Your task to perform on an android device: open a new tab in the chrome app Image 0: 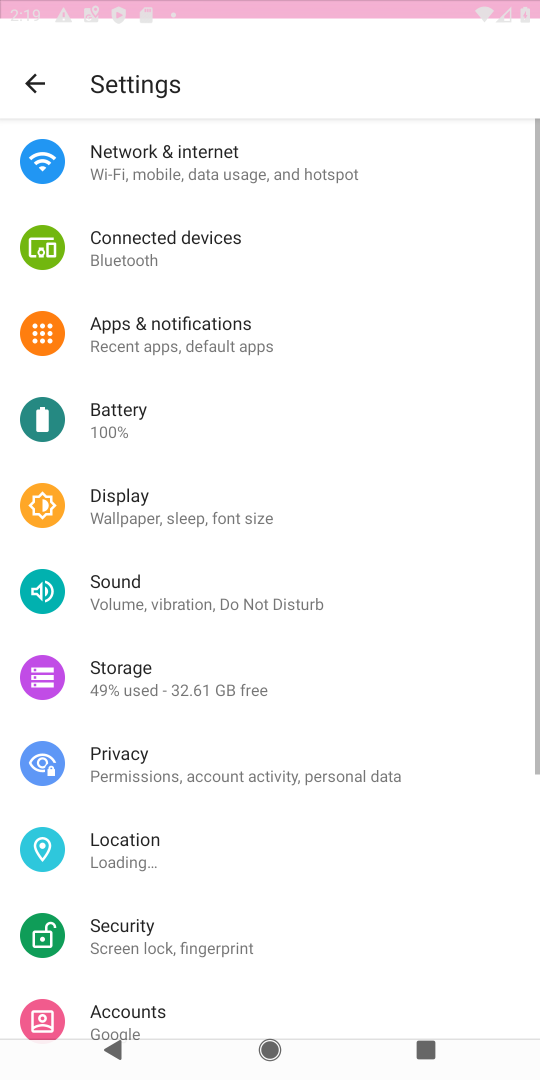
Step 0: press back button
Your task to perform on an android device: open a new tab in the chrome app Image 1: 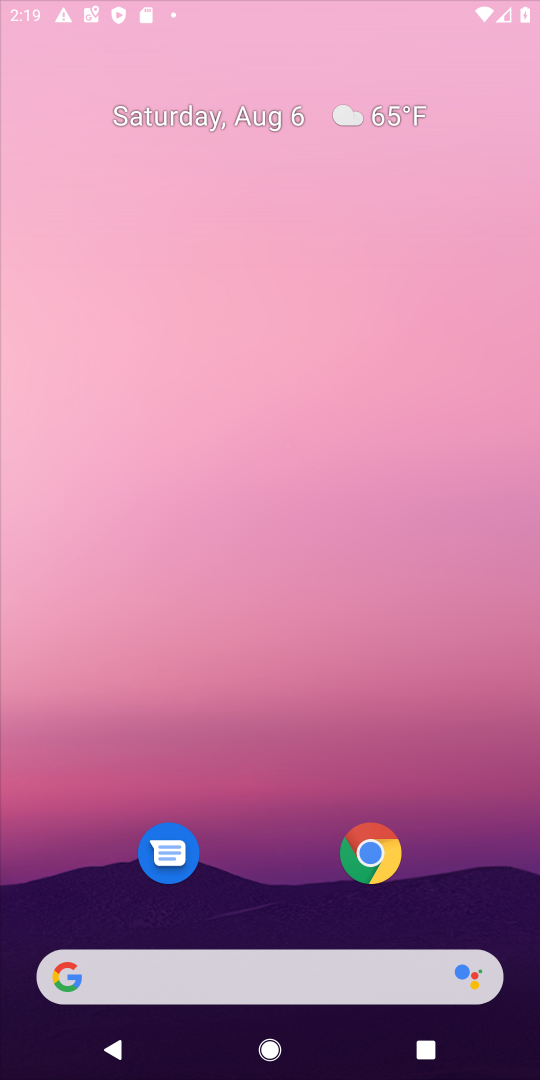
Step 1: press back button
Your task to perform on an android device: open a new tab in the chrome app Image 2: 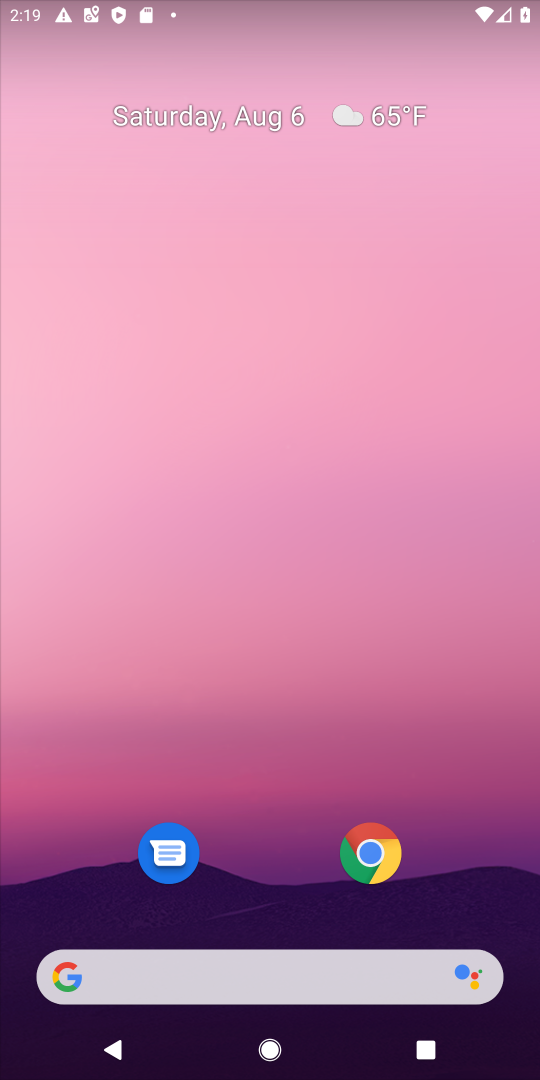
Step 2: click (374, 847)
Your task to perform on an android device: open a new tab in the chrome app Image 3: 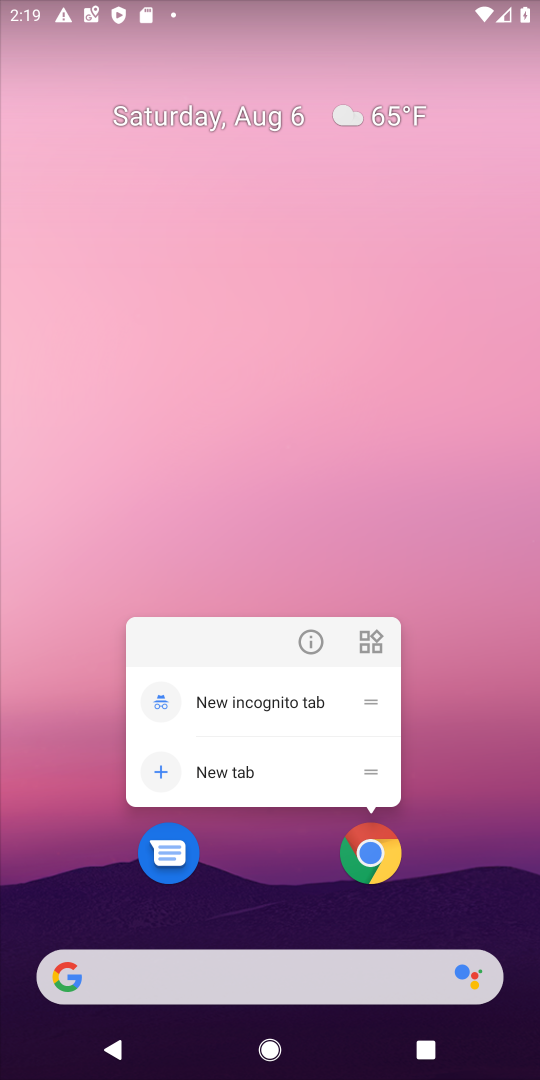
Step 3: click (371, 838)
Your task to perform on an android device: open a new tab in the chrome app Image 4: 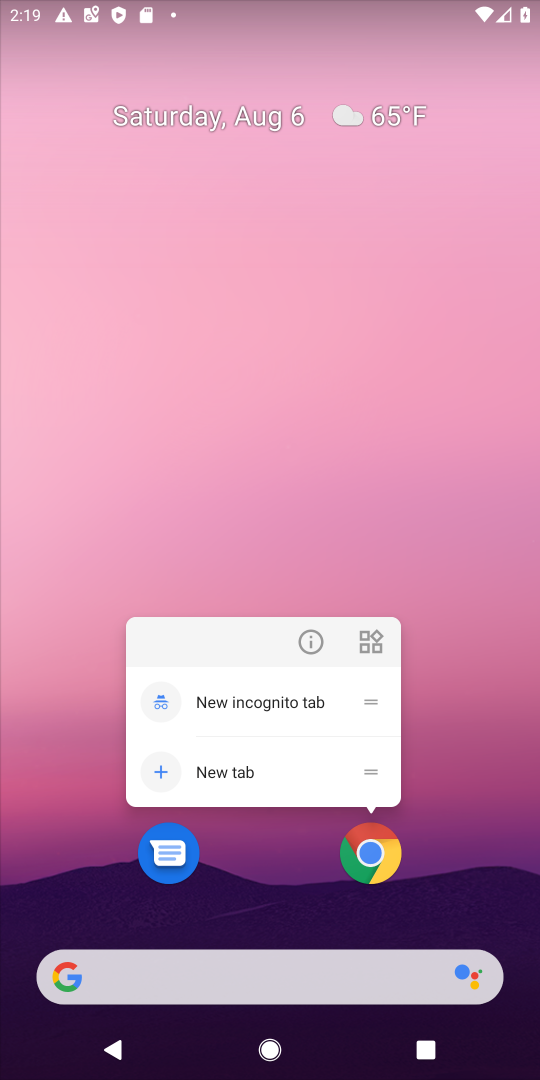
Step 4: click (367, 848)
Your task to perform on an android device: open a new tab in the chrome app Image 5: 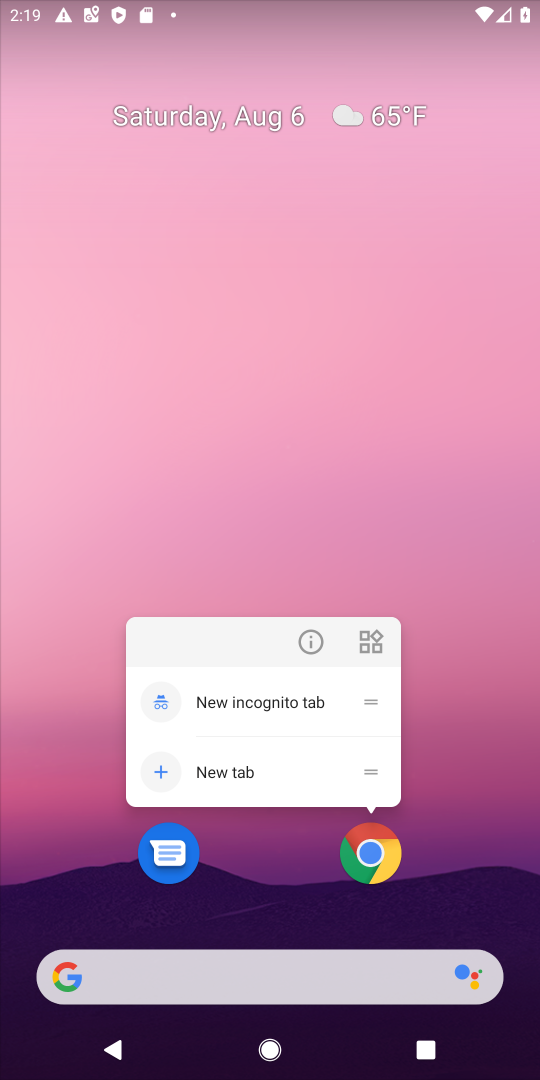
Step 5: click (380, 853)
Your task to perform on an android device: open a new tab in the chrome app Image 6: 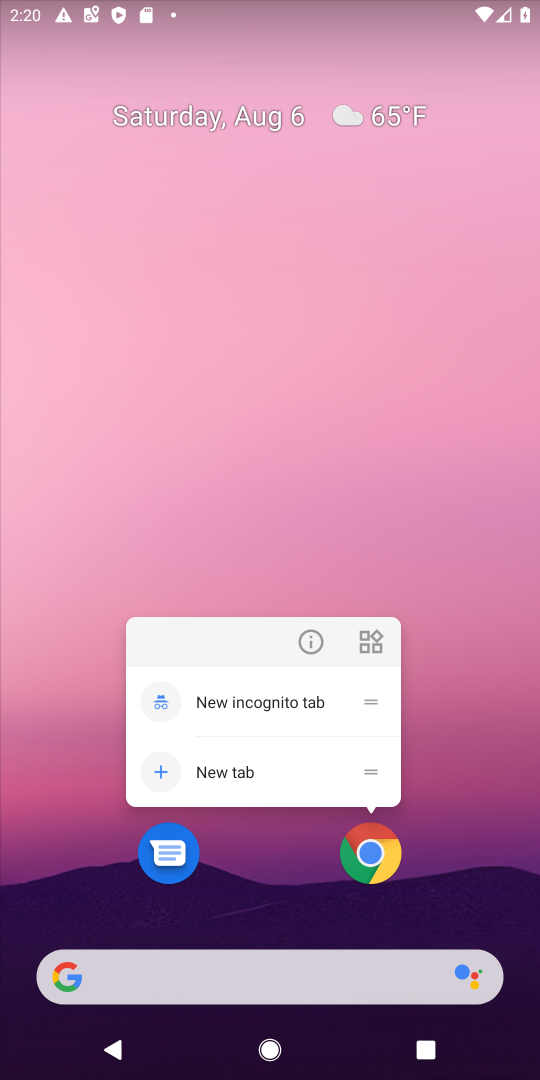
Step 6: click (336, 841)
Your task to perform on an android device: open a new tab in the chrome app Image 7: 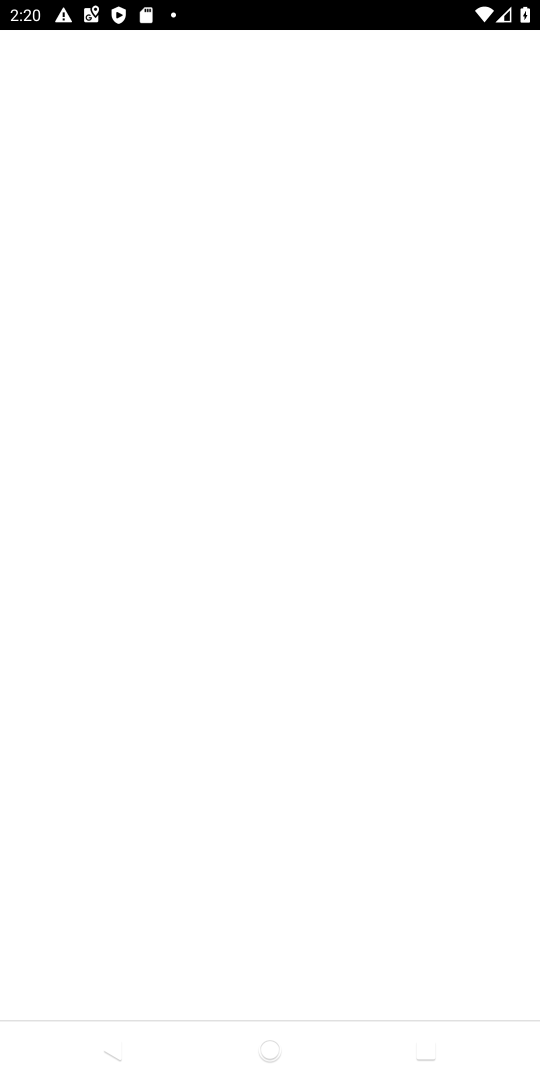
Step 7: click (368, 839)
Your task to perform on an android device: open a new tab in the chrome app Image 8: 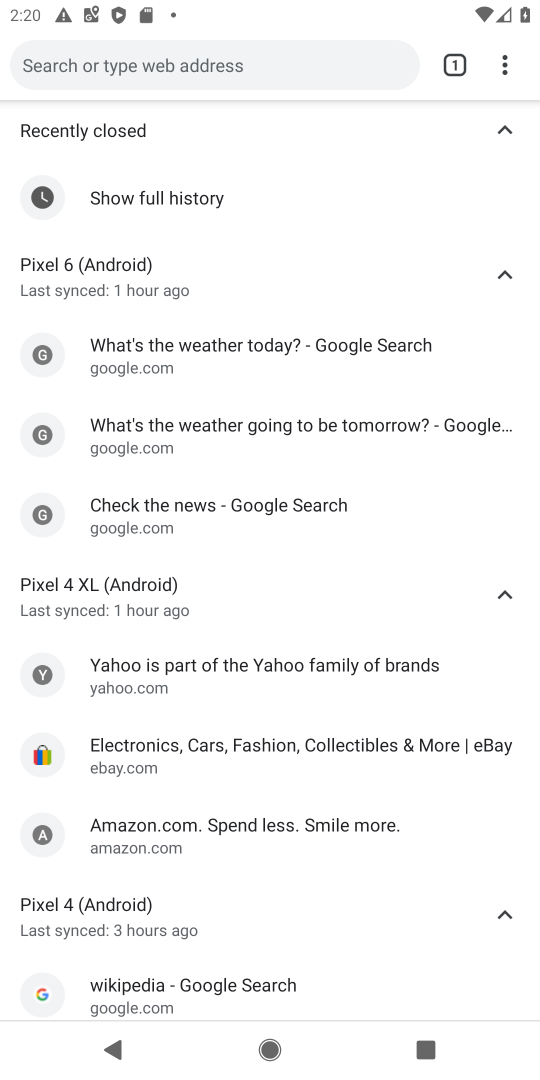
Step 8: click (458, 60)
Your task to perform on an android device: open a new tab in the chrome app Image 9: 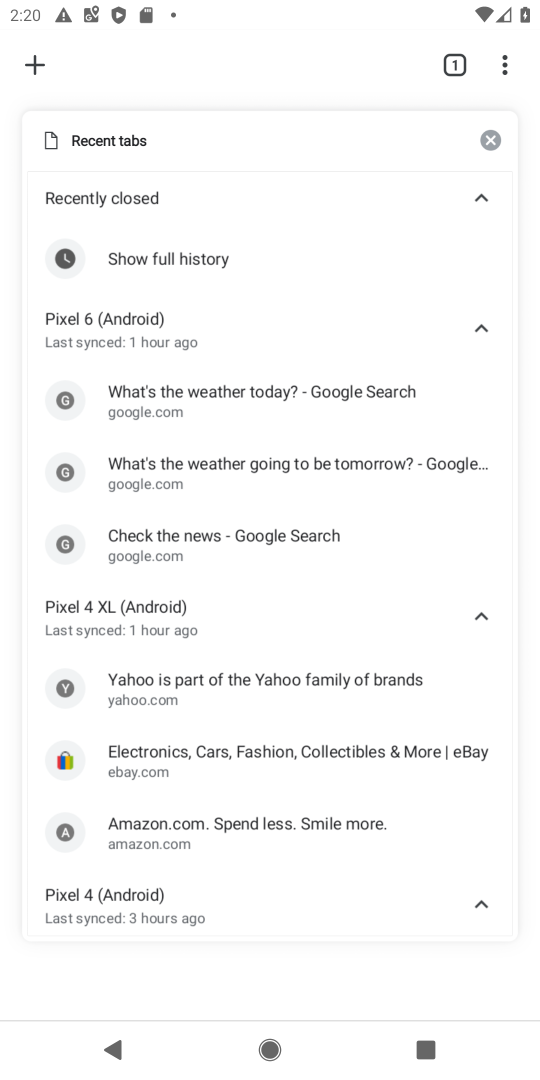
Step 9: click (45, 64)
Your task to perform on an android device: open a new tab in the chrome app Image 10: 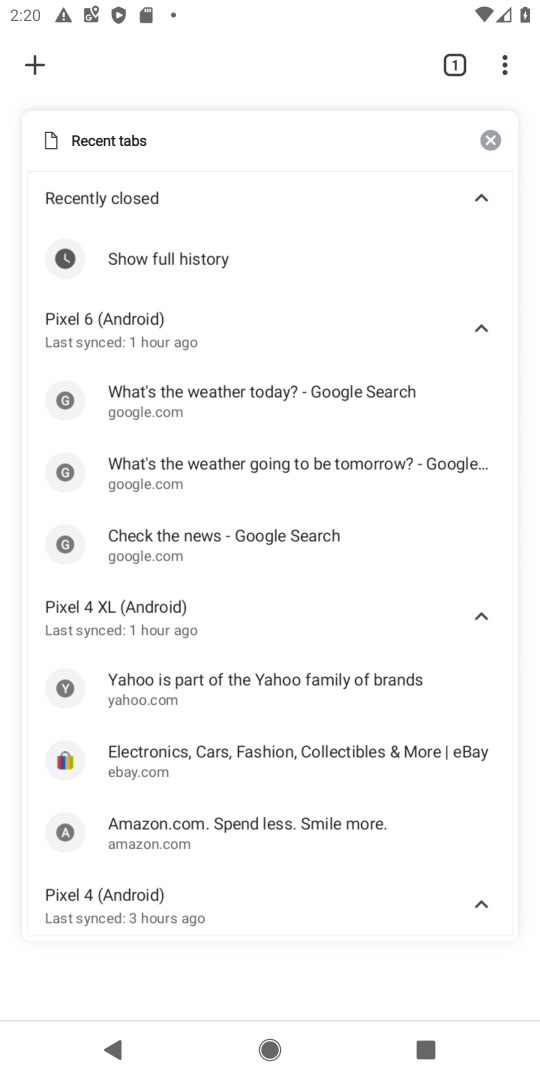
Step 10: task complete